Your task to perform on an android device: Go to wifi settings Image 0: 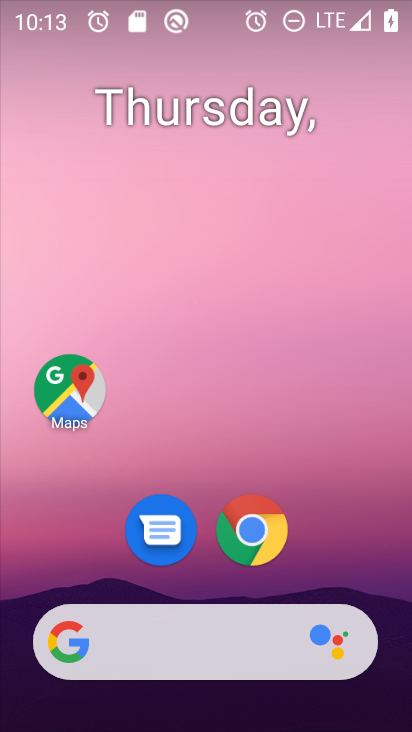
Step 0: drag from (366, 558) to (223, 104)
Your task to perform on an android device: Go to wifi settings Image 1: 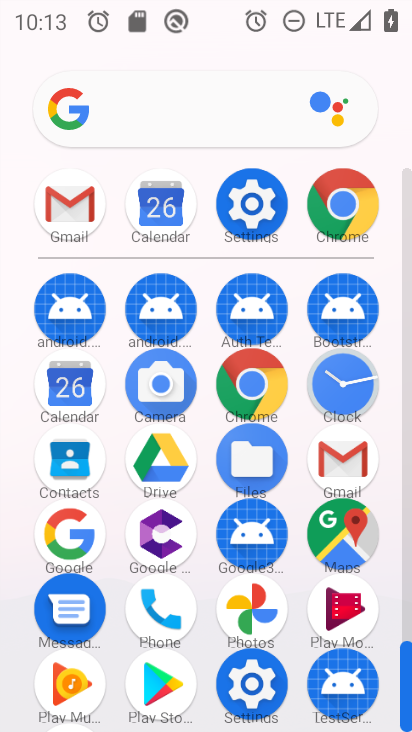
Step 1: drag from (9, 577) to (9, 288)
Your task to perform on an android device: Go to wifi settings Image 2: 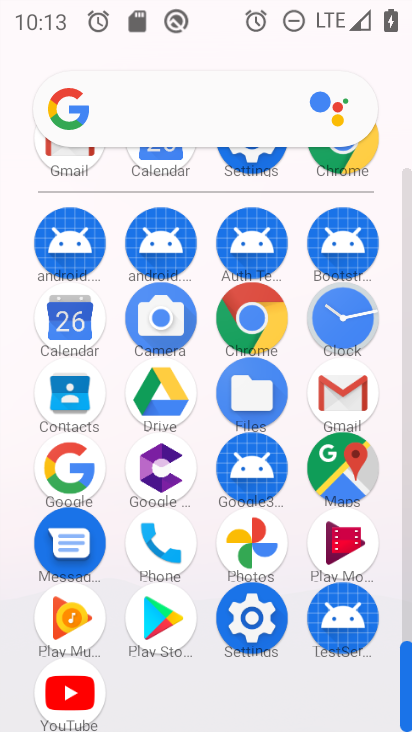
Step 2: click (250, 612)
Your task to perform on an android device: Go to wifi settings Image 3: 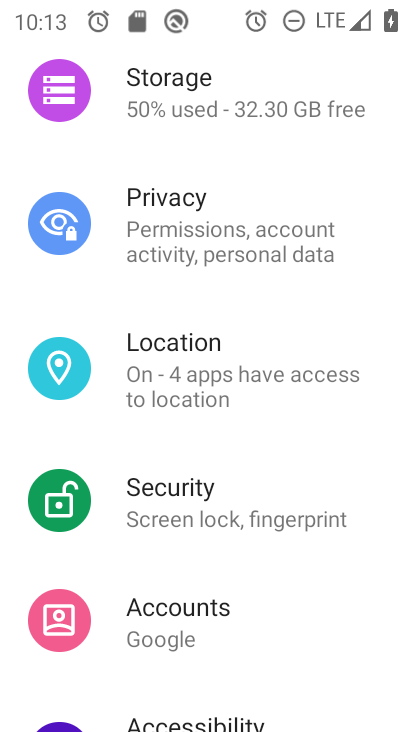
Step 3: drag from (240, 175) to (223, 569)
Your task to perform on an android device: Go to wifi settings Image 4: 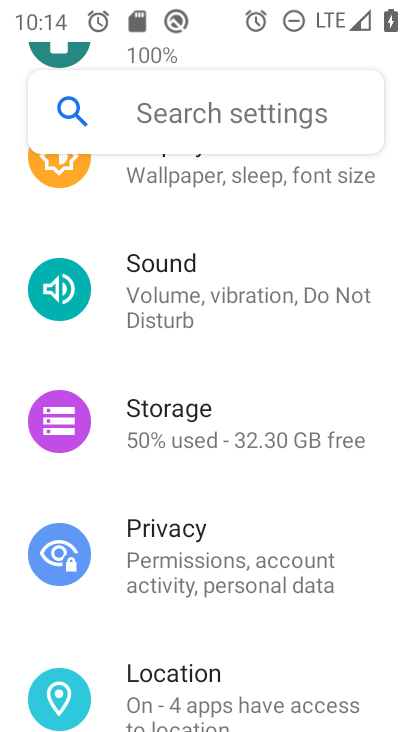
Step 4: drag from (250, 299) to (252, 617)
Your task to perform on an android device: Go to wifi settings Image 5: 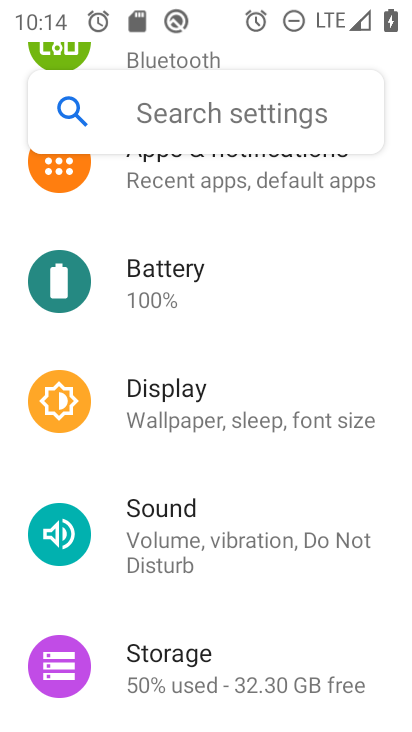
Step 5: drag from (255, 283) to (253, 597)
Your task to perform on an android device: Go to wifi settings Image 6: 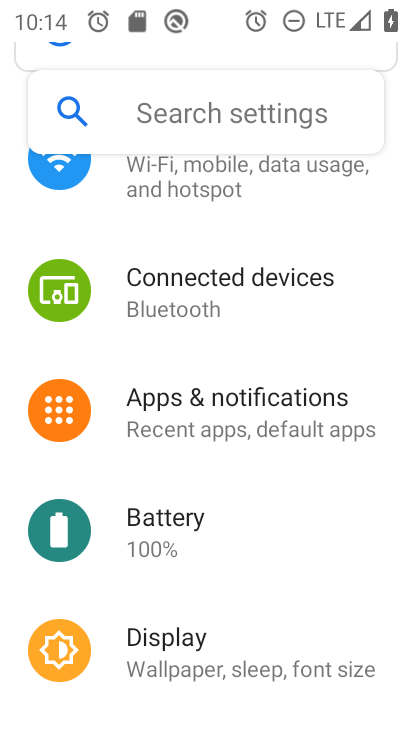
Step 6: drag from (260, 207) to (260, 596)
Your task to perform on an android device: Go to wifi settings Image 7: 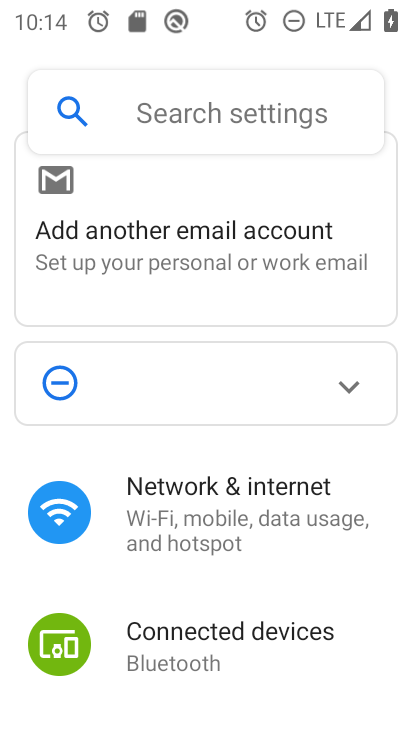
Step 7: click (246, 443)
Your task to perform on an android device: Go to wifi settings Image 8: 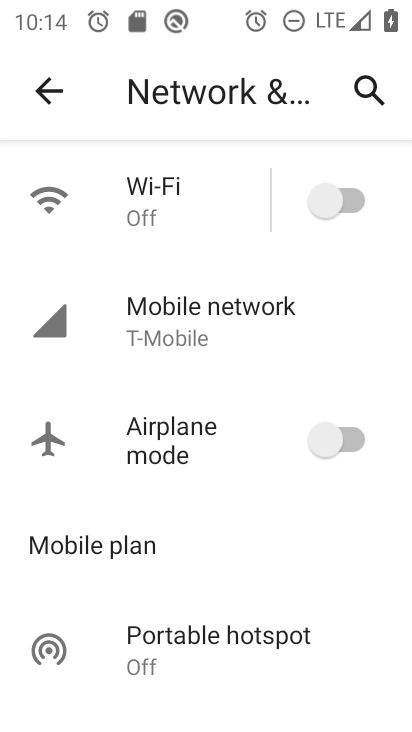
Step 8: click (176, 189)
Your task to perform on an android device: Go to wifi settings Image 9: 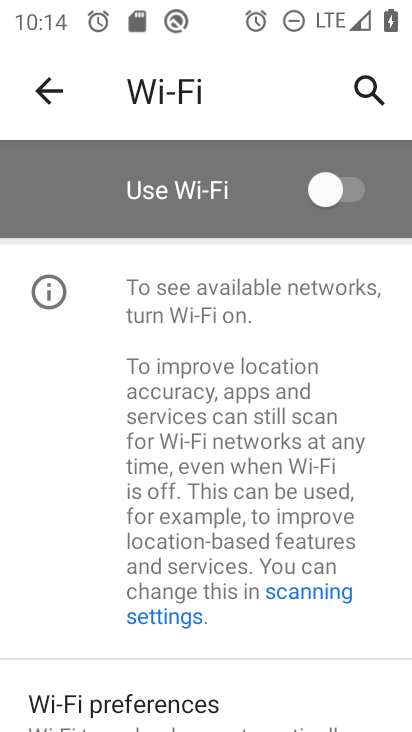
Step 9: task complete